Your task to perform on an android device: turn off javascript in the chrome app Image 0: 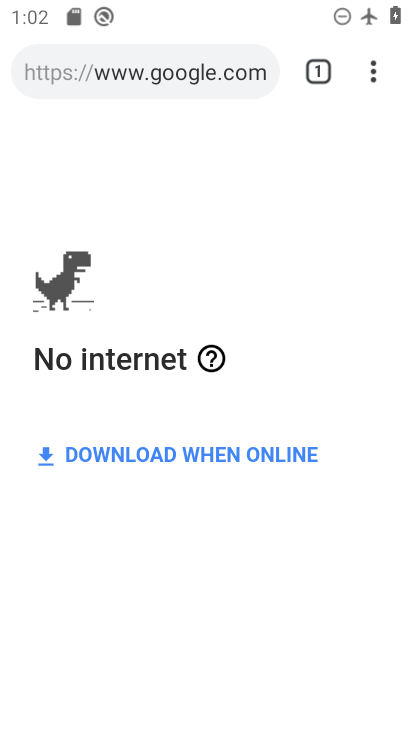
Step 0: press home button
Your task to perform on an android device: turn off javascript in the chrome app Image 1: 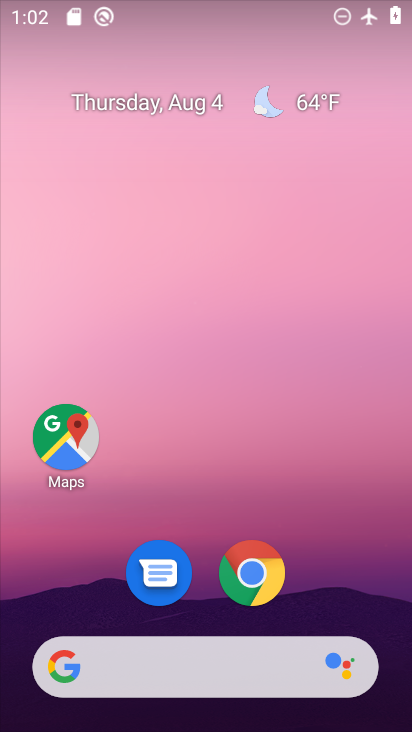
Step 1: drag from (341, 568) to (300, 116)
Your task to perform on an android device: turn off javascript in the chrome app Image 2: 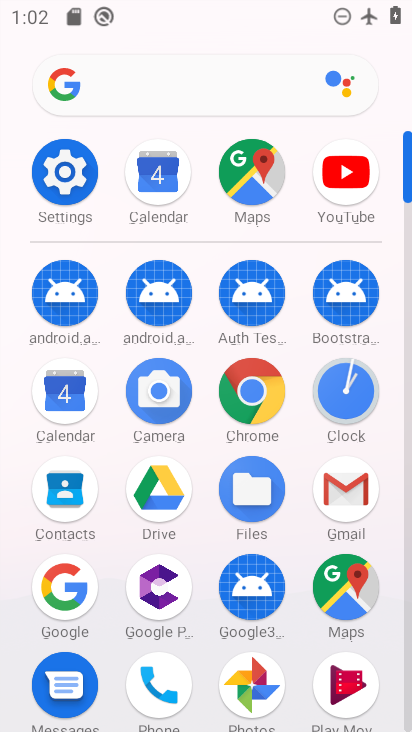
Step 2: click (250, 383)
Your task to perform on an android device: turn off javascript in the chrome app Image 3: 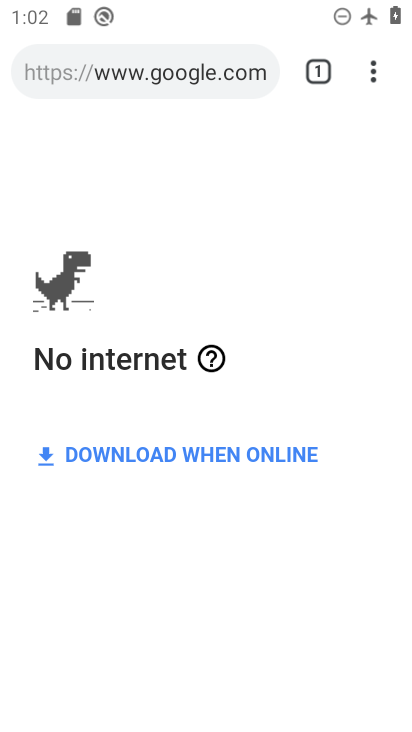
Step 3: click (380, 60)
Your task to perform on an android device: turn off javascript in the chrome app Image 4: 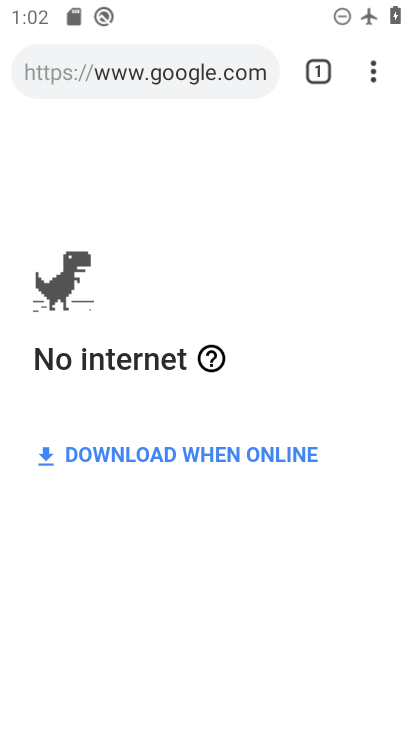
Step 4: drag from (380, 61) to (171, 566)
Your task to perform on an android device: turn off javascript in the chrome app Image 5: 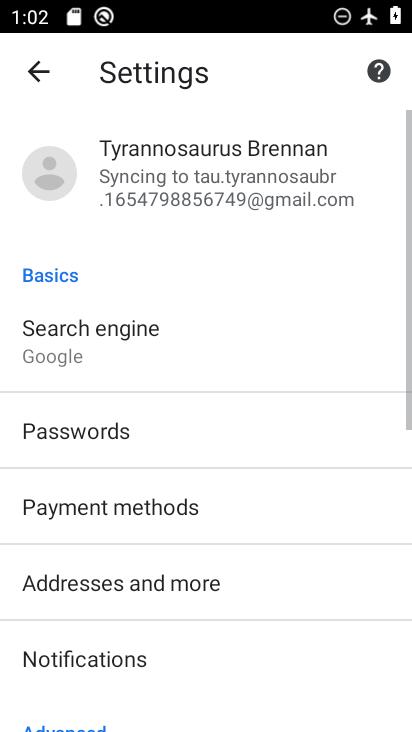
Step 5: drag from (220, 607) to (257, 241)
Your task to perform on an android device: turn off javascript in the chrome app Image 6: 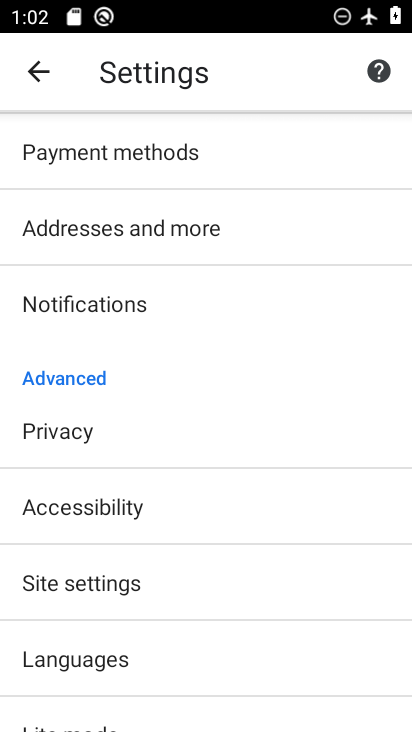
Step 6: click (103, 579)
Your task to perform on an android device: turn off javascript in the chrome app Image 7: 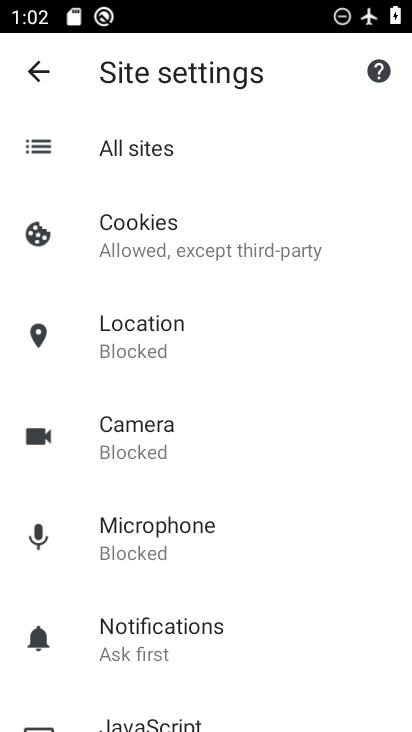
Step 7: drag from (301, 622) to (271, 277)
Your task to perform on an android device: turn off javascript in the chrome app Image 8: 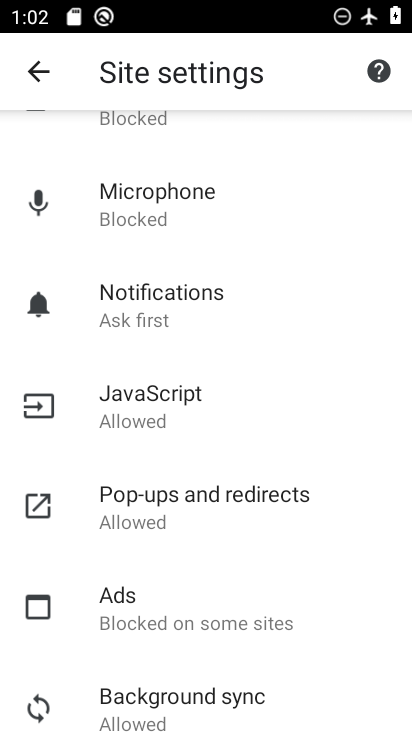
Step 8: click (144, 409)
Your task to perform on an android device: turn off javascript in the chrome app Image 9: 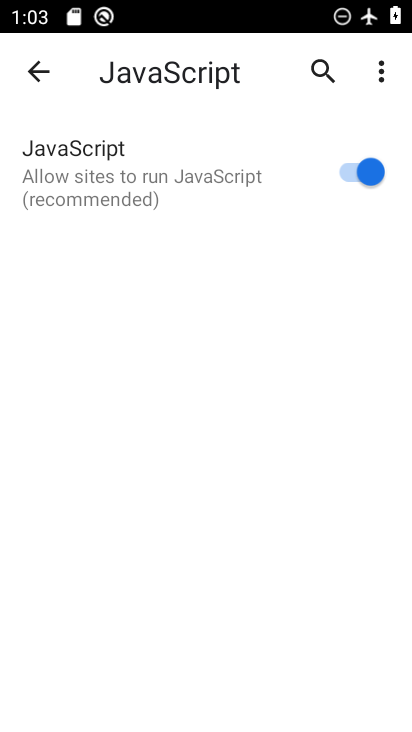
Step 9: click (368, 173)
Your task to perform on an android device: turn off javascript in the chrome app Image 10: 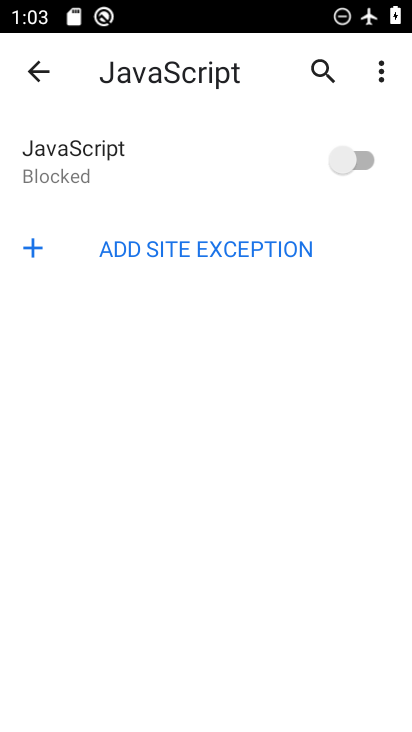
Step 10: task complete